Your task to perform on an android device: turn off airplane mode Image 0: 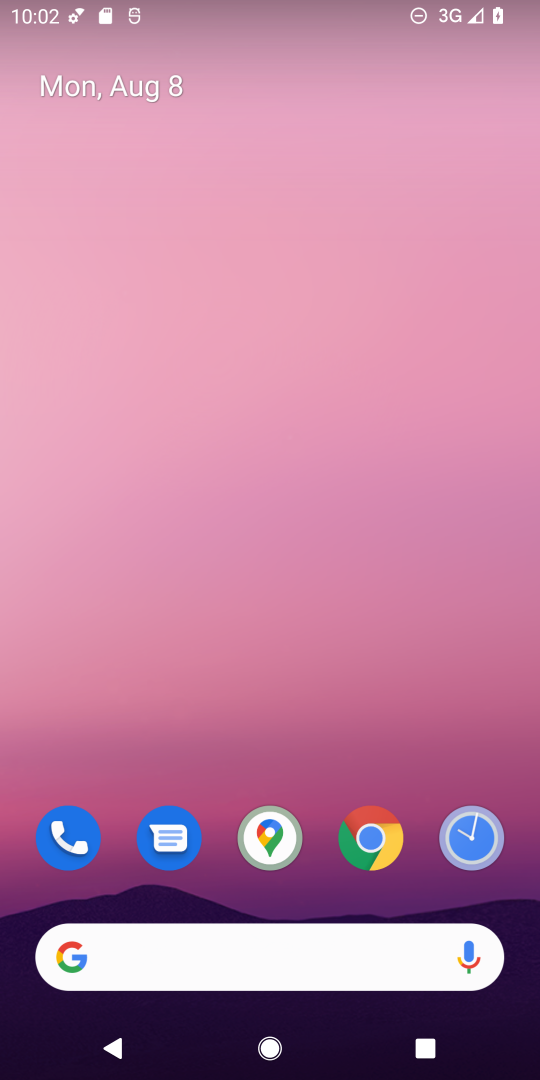
Step 0: press home button
Your task to perform on an android device: turn off airplane mode Image 1: 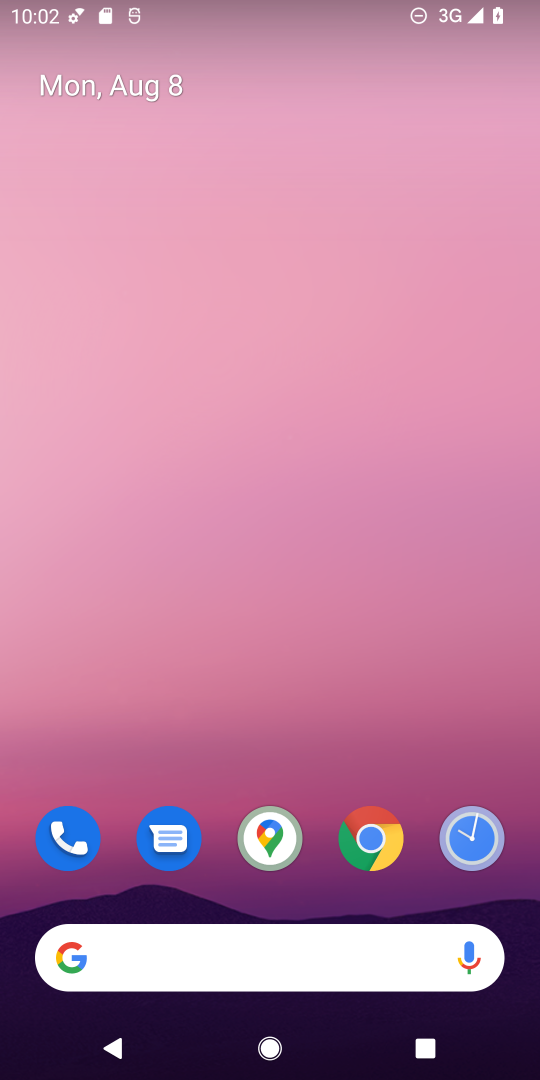
Step 1: drag from (334, 866) to (412, 94)
Your task to perform on an android device: turn off airplane mode Image 2: 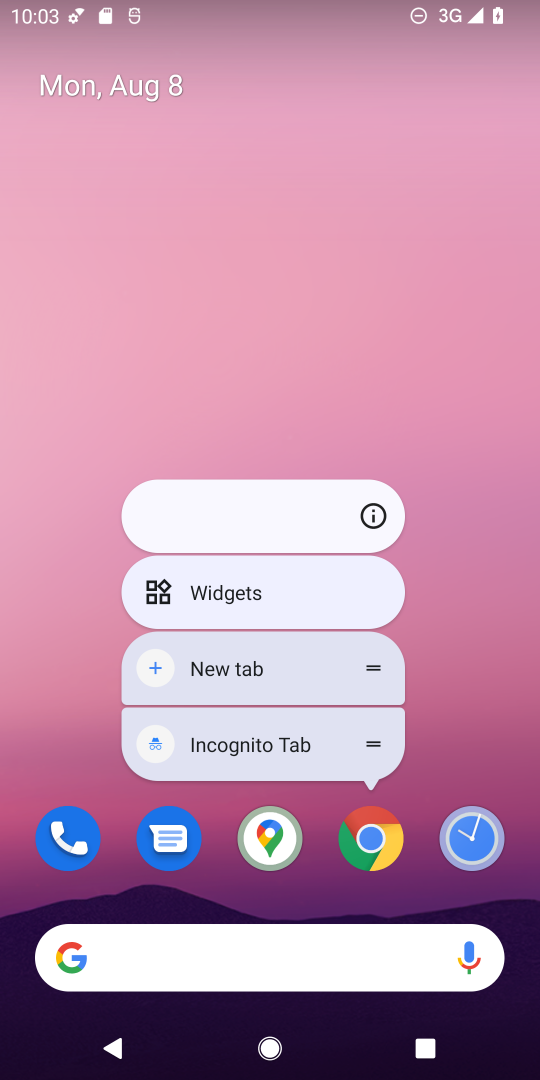
Step 2: click (437, 757)
Your task to perform on an android device: turn off airplane mode Image 3: 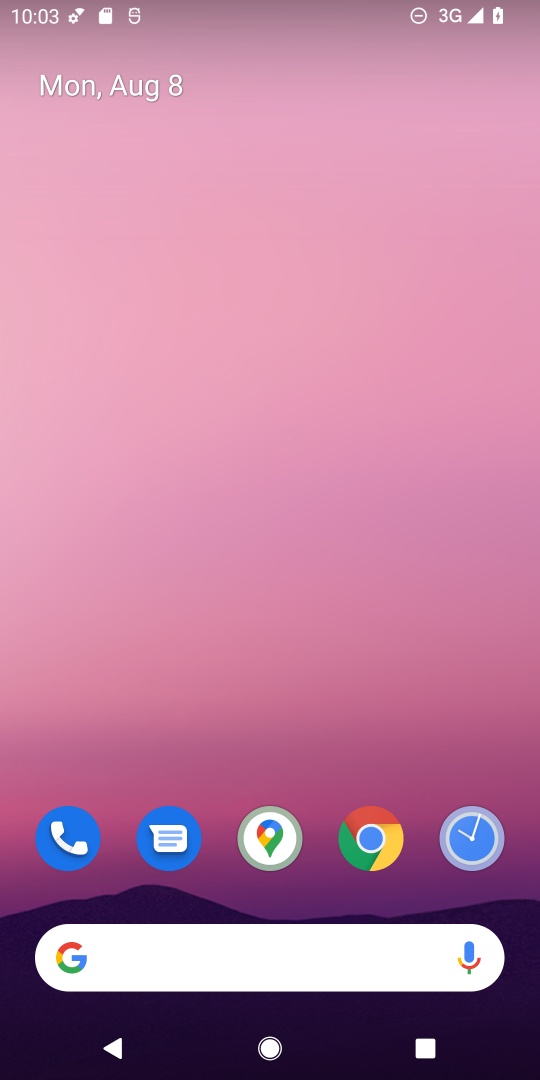
Step 3: drag from (424, 879) to (490, 20)
Your task to perform on an android device: turn off airplane mode Image 4: 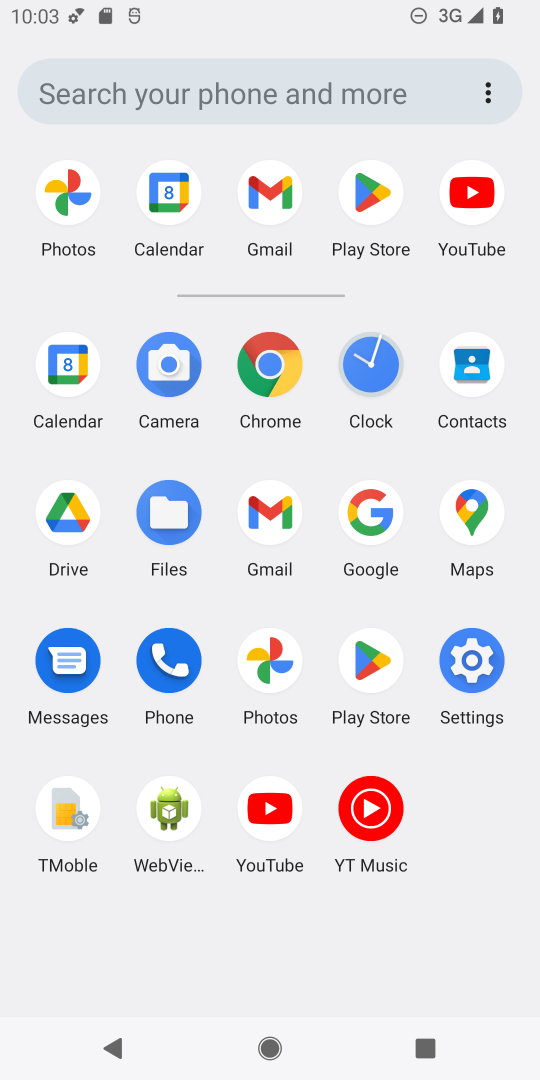
Step 4: click (464, 672)
Your task to perform on an android device: turn off airplane mode Image 5: 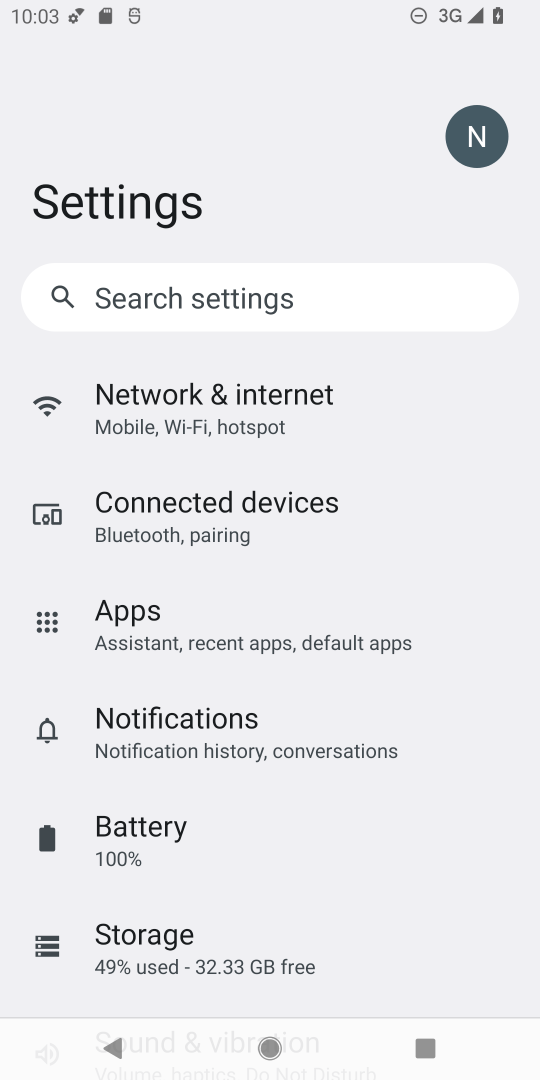
Step 5: drag from (404, 871) to (401, 251)
Your task to perform on an android device: turn off airplane mode Image 6: 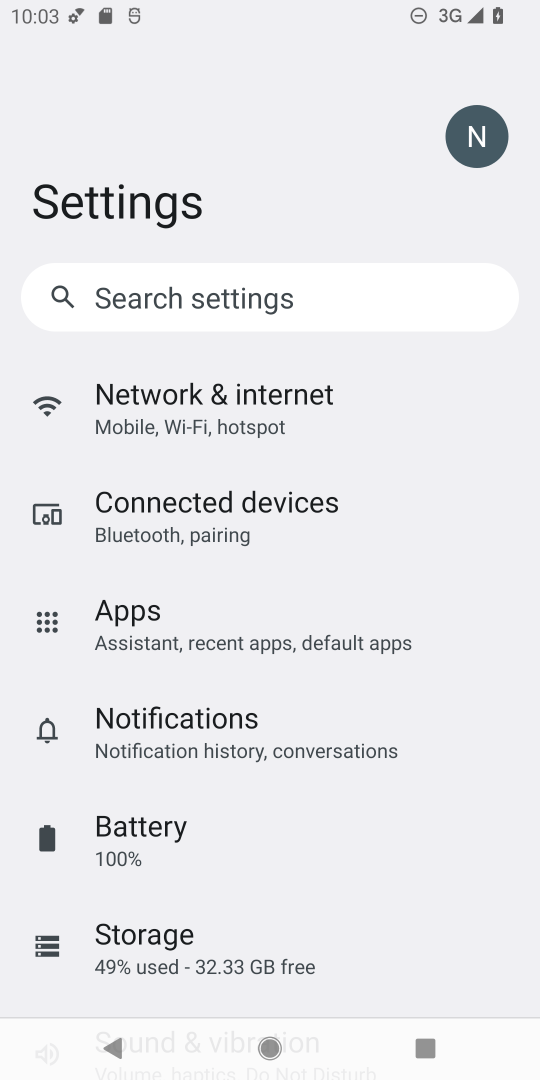
Step 6: drag from (397, 868) to (364, 179)
Your task to perform on an android device: turn off airplane mode Image 7: 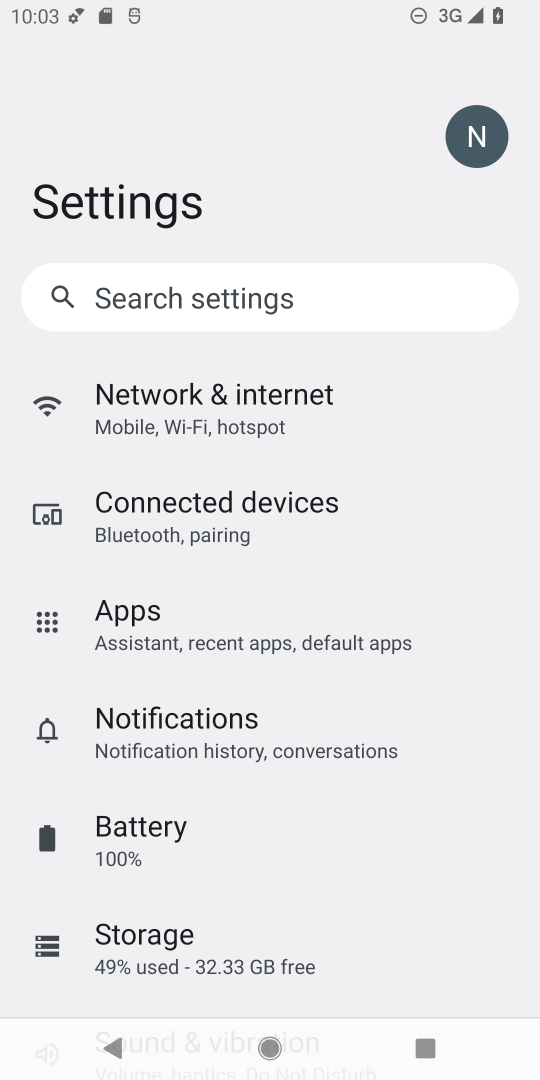
Step 7: drag from (413, 918) to (363, 214)
Your task to perform on an android device: turn off airplane mode Image 8: 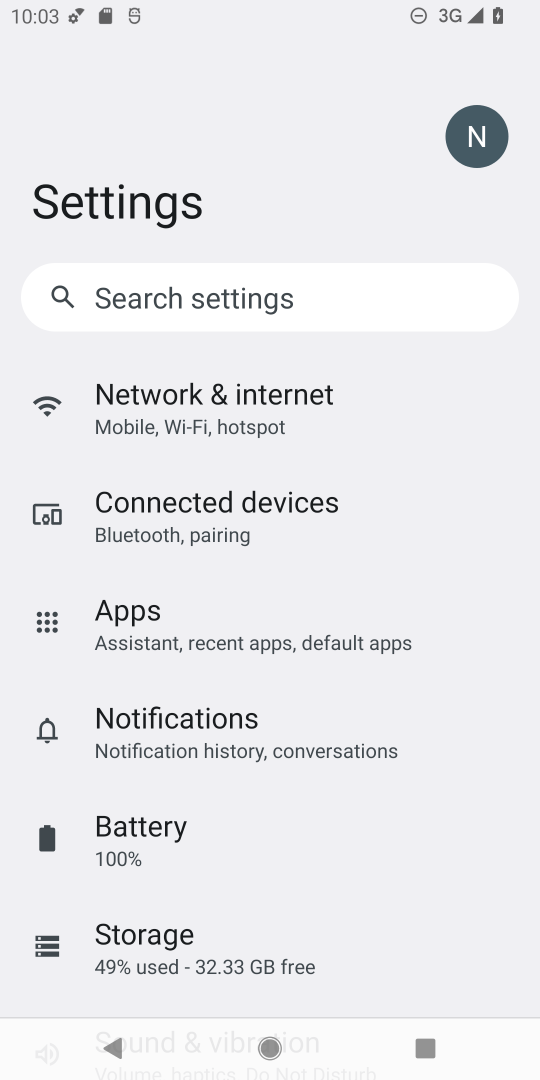
Step 8: drag from (440, 858) to (352, 70)
Your task to perform on an android device: turn off airplane mode Image 9: 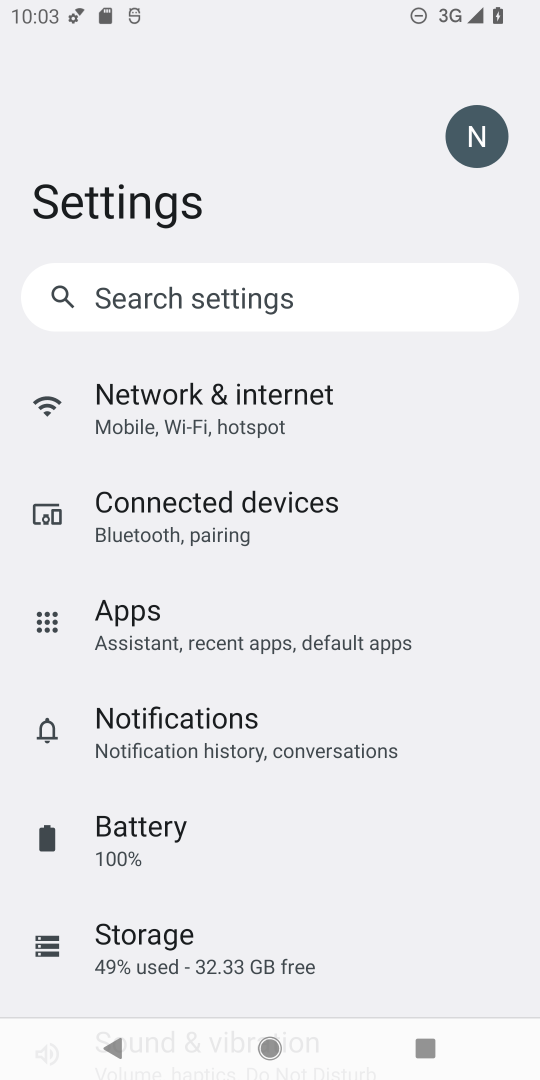
Step 9: click (260, 407)
Your task to perform on an android device: turn off airplane mode Image 10: 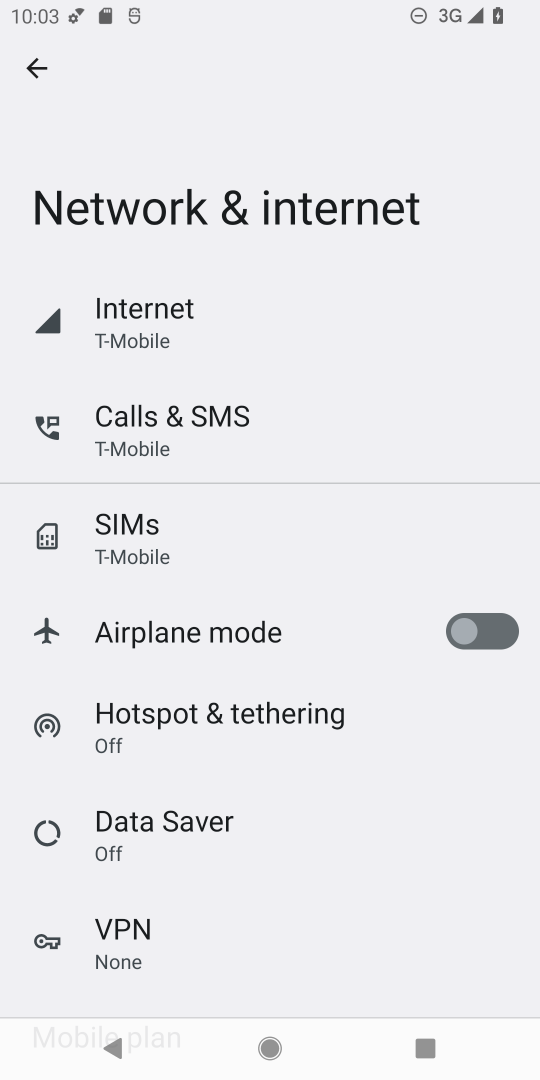
Step 10: task complete